Your task to perform on an android device: turn off notifications settings in the gmail app Image 0: 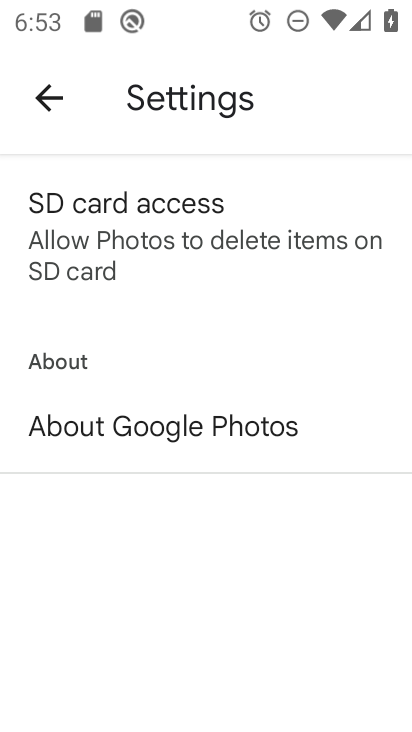
Step 0: press home button
Your task to perform on an android device: turn off notifications settings in the gmail app Image 1: 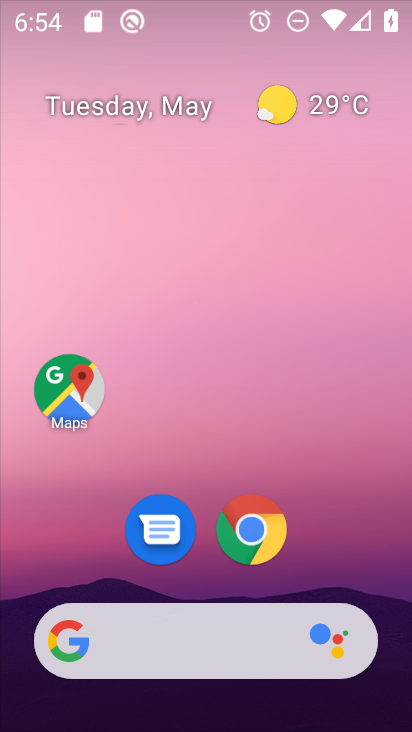
Step 1: drag from (378, 610) to (260, 129)
Your task to perform on an android device: turn off notifications settings in the gmail app Image 2: 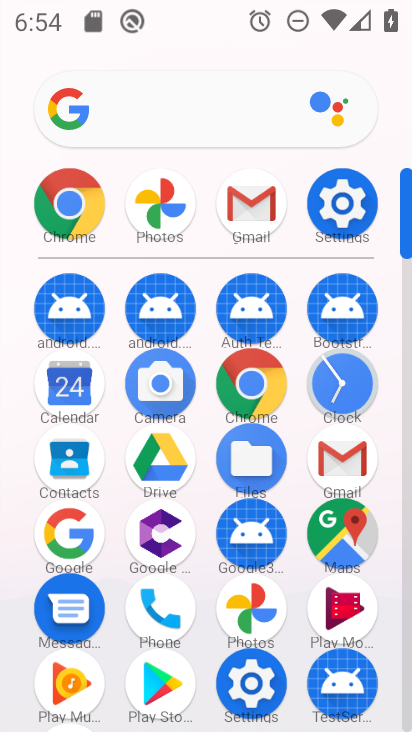
Step 2: click (327, 458)
Your task to perform on an android device: turn off notifications settings in the gmail app Image 3: 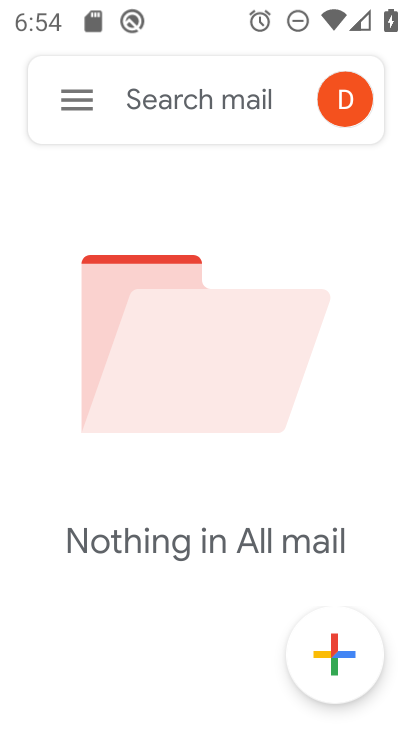
Step 3: click (85, 105)
Your task to perform on an android device: turn off notifications settings in the gmail app Image 4: 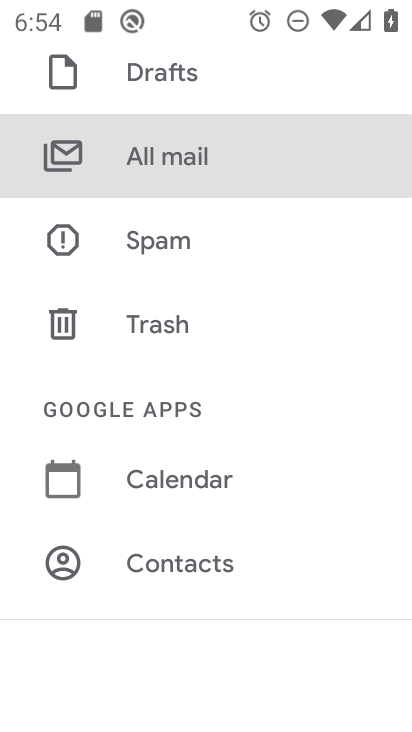
Step 4: drag from (174, 525) to (170, 75)
Your task to perform on an android device: turn off notifications settings in the gmail app Image 5: 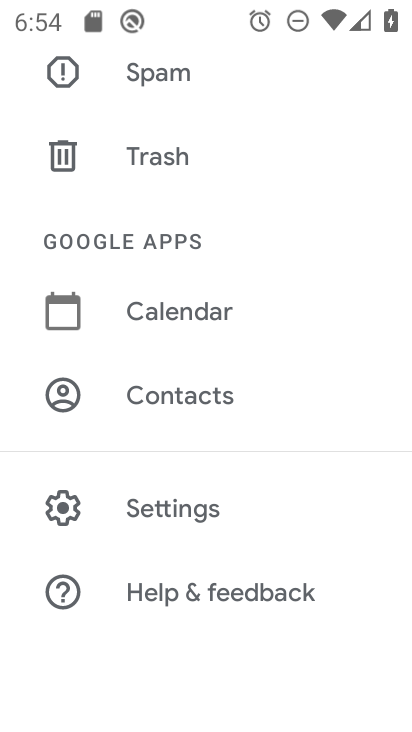
Step 5: click (160, 489)
Your task to perform on an android device: turn off notifications settings in the gmail app Image 6: 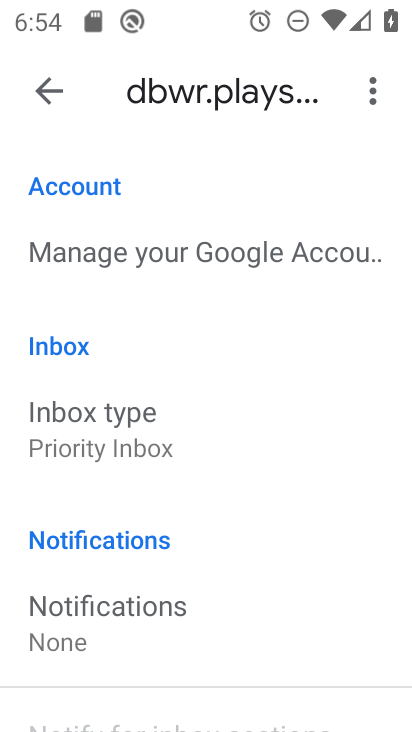
Step 6: click (163, 637)
Your task to perform on an android device: turn off notifications settings in the gmail app Image 7: 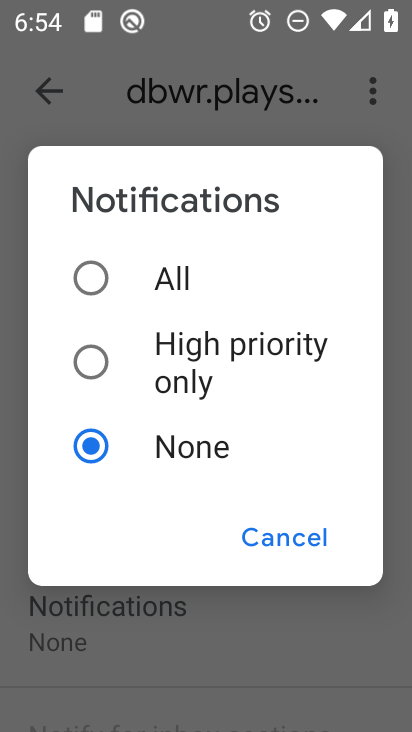
Step 7: click (187, 434)
Your task to perform on an android device: turn off notifications settings in the gmail app Image 8: 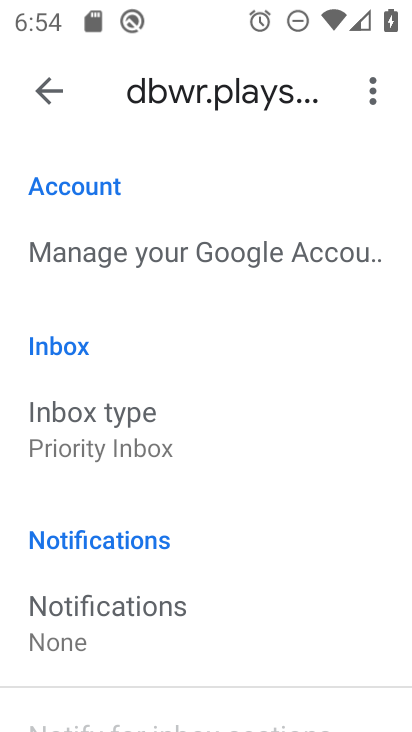
Step 8: task complete